Your task to perform on an android device: toggle data saver in the chrome app Image 0: 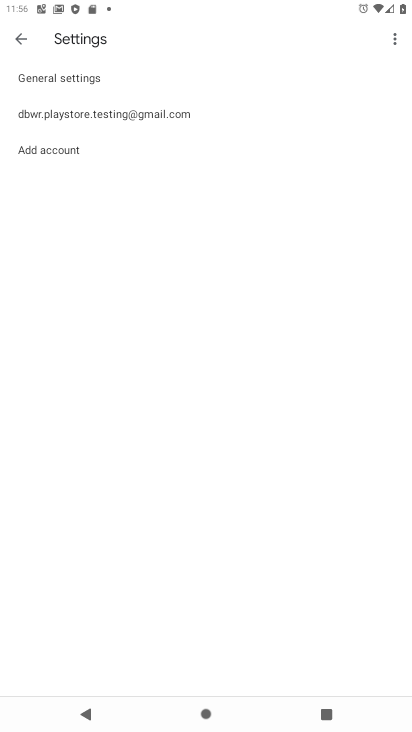
Step 0: press home button
Your task to perform on an android device: toggle data saver in the chrome app Image 1: 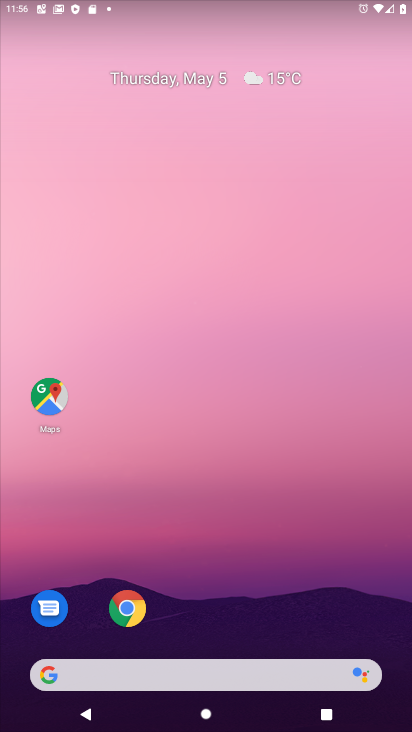
Step 1: click (139, 605)
Your task to perform on an android device: toggle data saver in the chrome app Image 2: 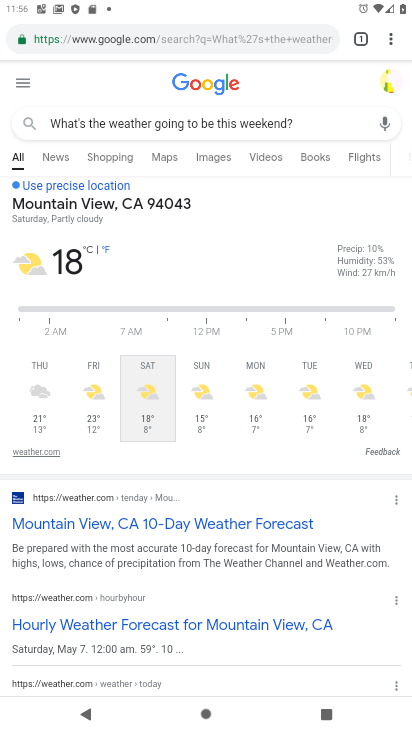
Step 2: drag from (393, 43) to (274, 443)
Your task to perform on an android device: toggle data saver in the chrome app Image 3: 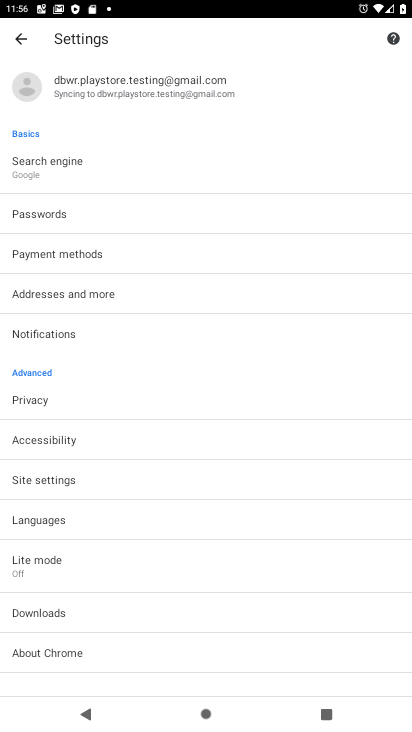
Step 3: click (77, 568)
Your task to perform on an android device: toggle data saver in the chrome app Image 4: 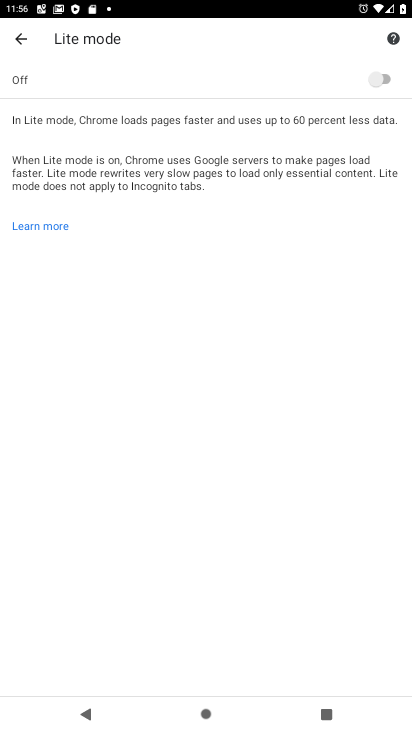
Step 4: click (389, 73)
Your task to perform on an android device: toggle data saver in the chrome app Image 5: 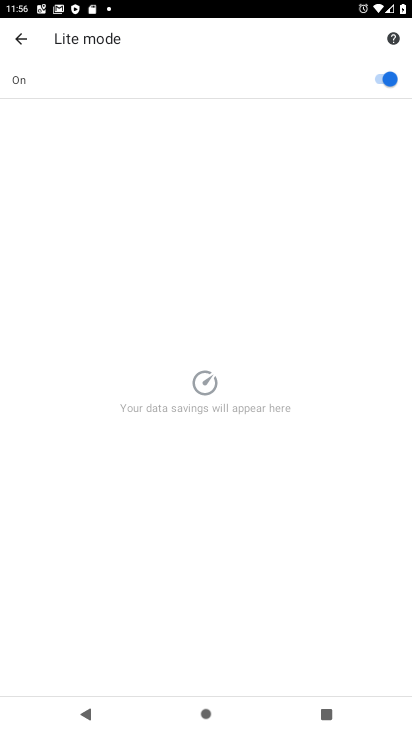
Step 5: task complete